Your task to perform on an android device: turn notification dots on Image 0: 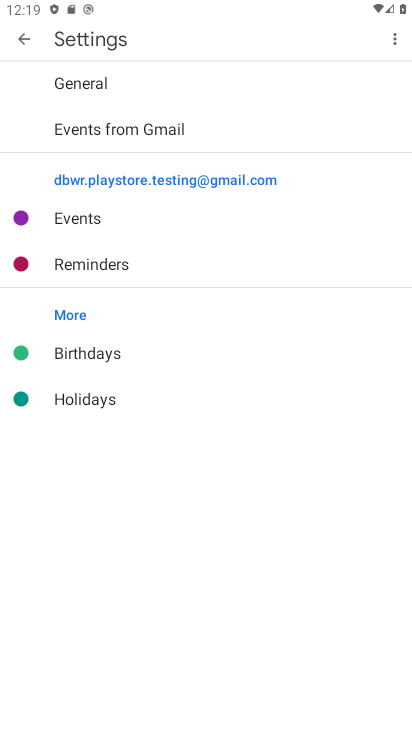
Step 0: press home button
Your task to perform on an android device: turn notification dots on Image 1: 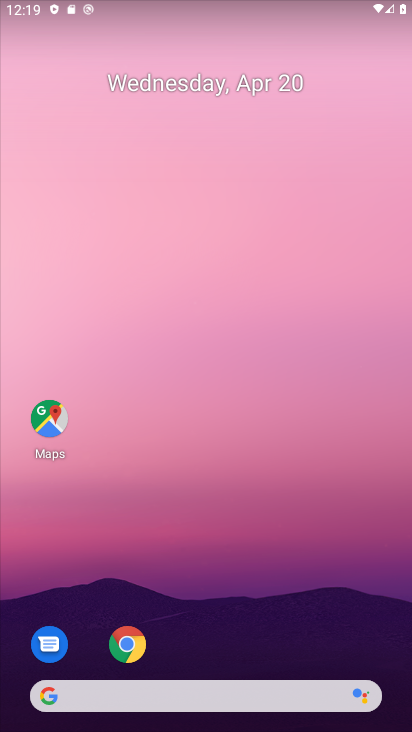
Step 1: drag from (274, 592) to (254, 42)
Your task to perform on an android device: turn notification dots on Image 2: 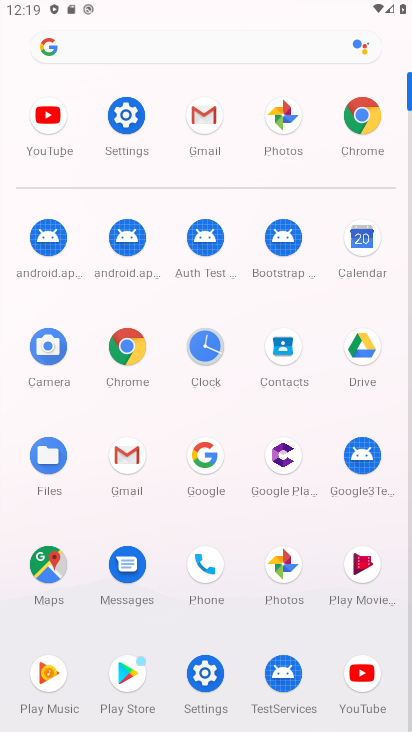
Step 2: click (124, 111)
Your task to perform on an android device: turn notification dots on Image 3: 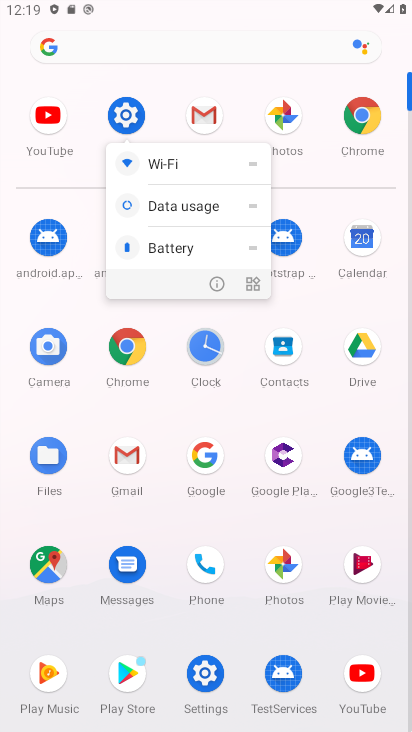
Step 3: click (124, 111)
Your task to perform on an android device: turn notification dots on Image 4: 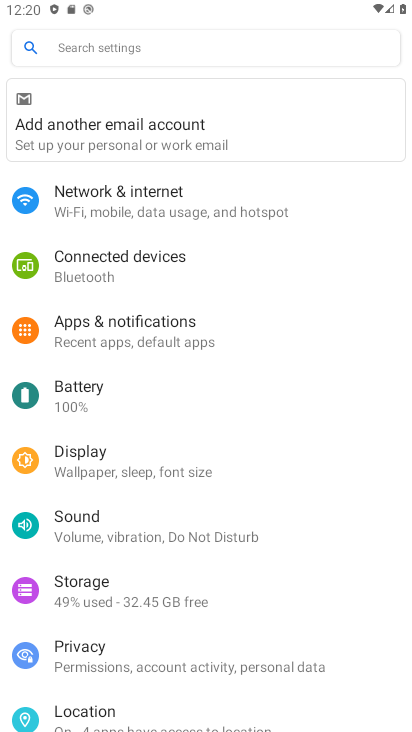
Step 4: click (124, 325)
Your task to perform on an android device: turn notification dots on Image 5: 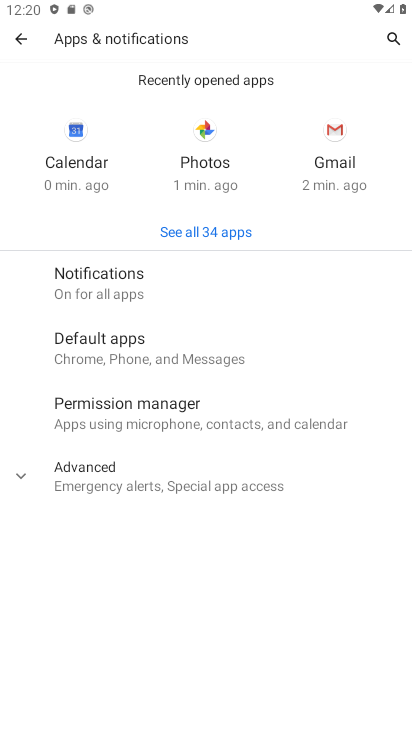
Step 5: click (110, 270)
Your task to perform on an android device: turn notification dots on Image 6: 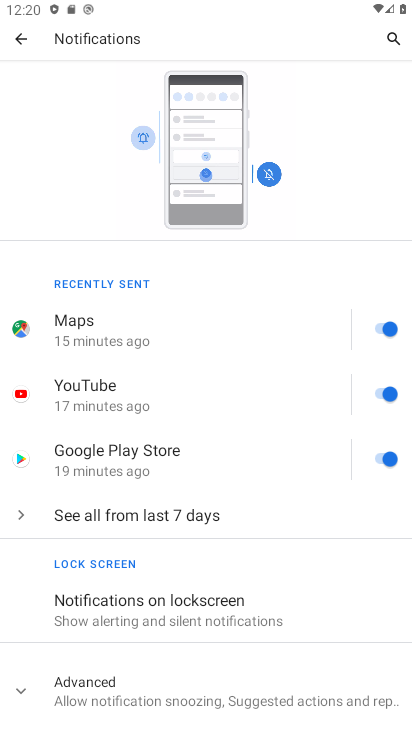
Step 6: click (23, 684)
Your task to perform on an android device: turn notification dots on Image 7: 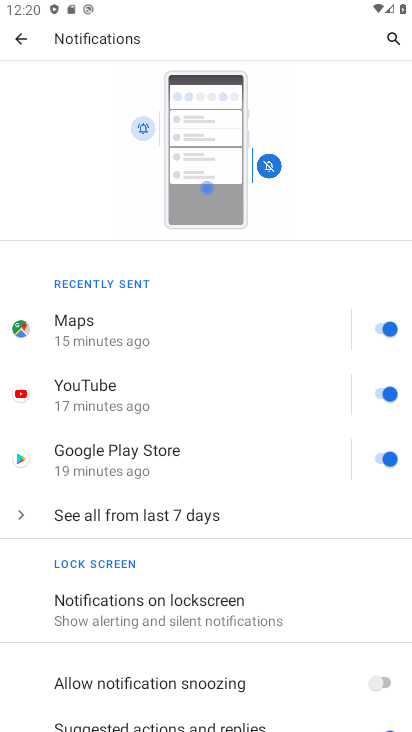
Step 7: task complete